Your task to perform on an android device: Search for good Japanese restaurants Image 0: 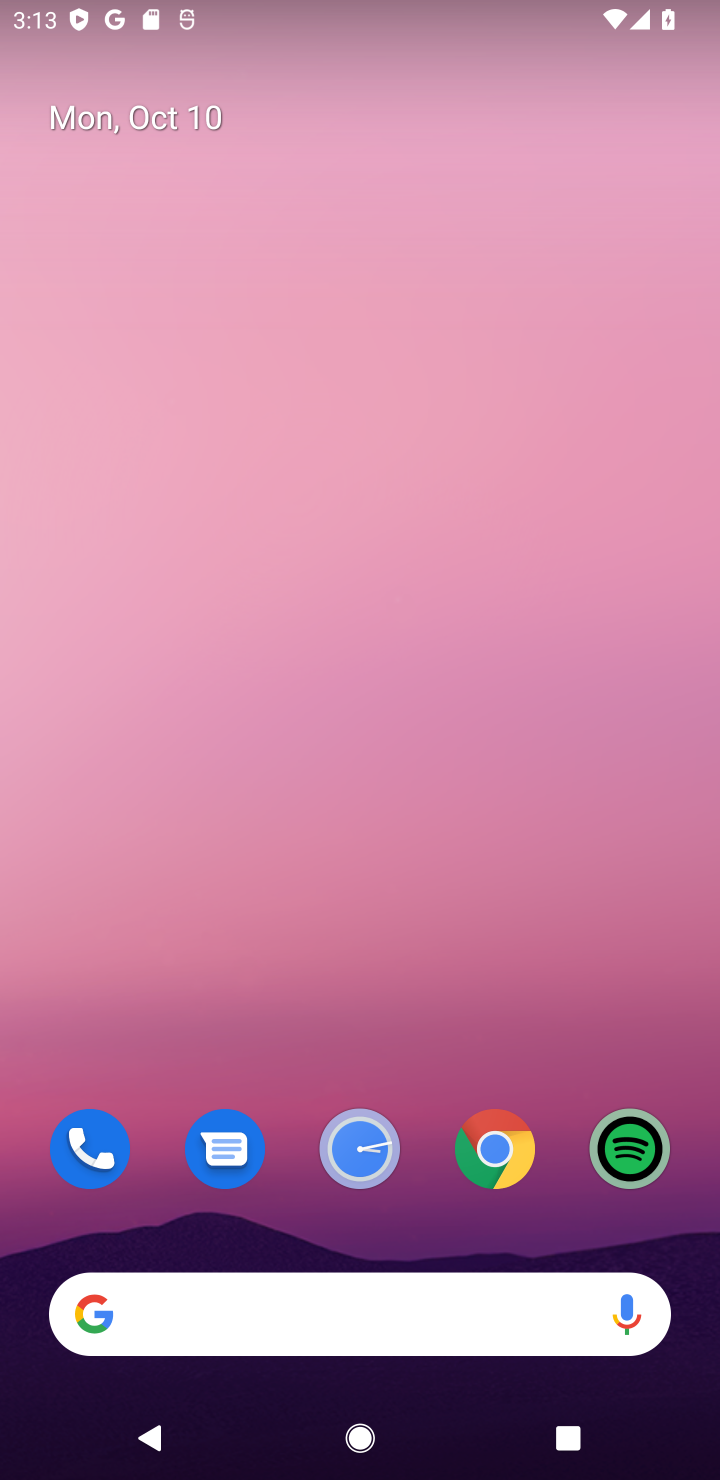
Step 0: click (314, 1283)
Your task to perform on an android device: Search for good Japanese restaurants Image 1: 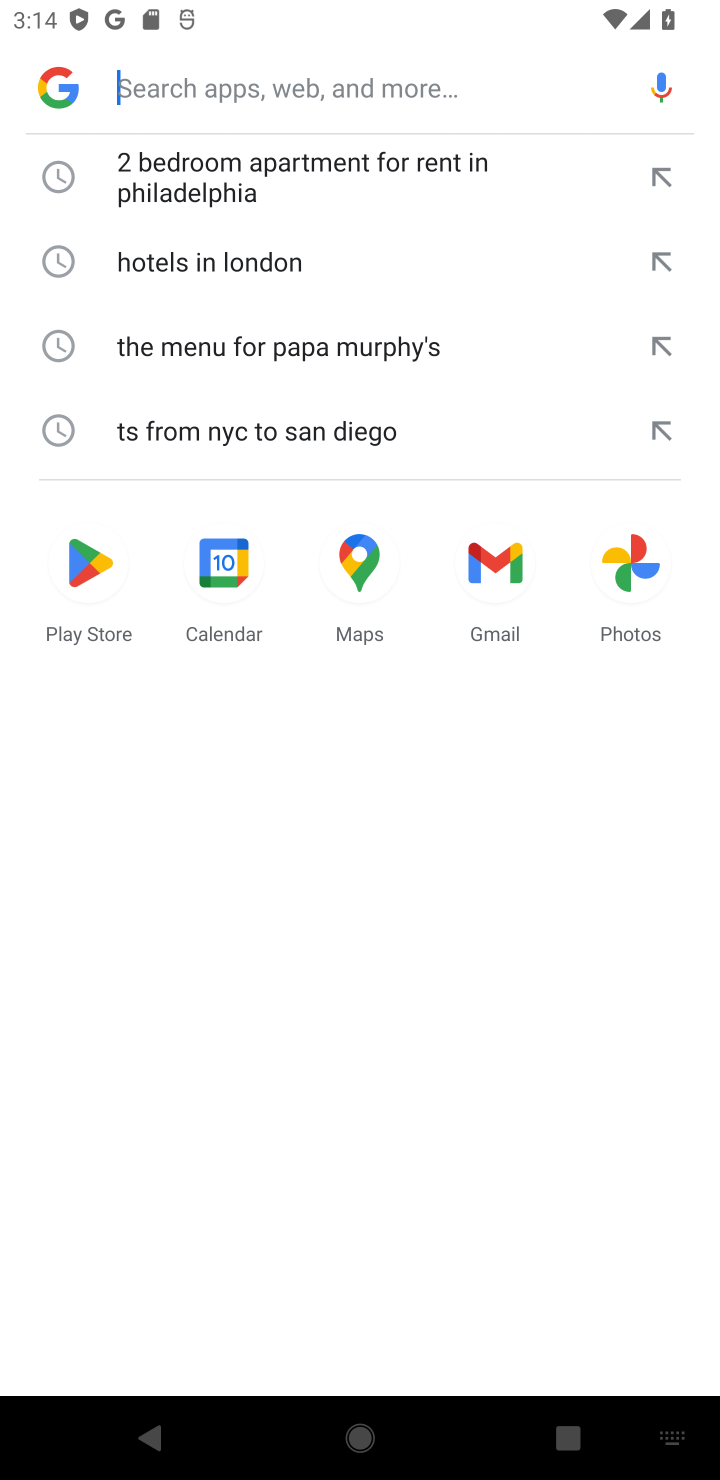
Step 1: type "good Japanese restaurants"
Your task to perform on an android device: Search for good Japanese restaurants Image 2: 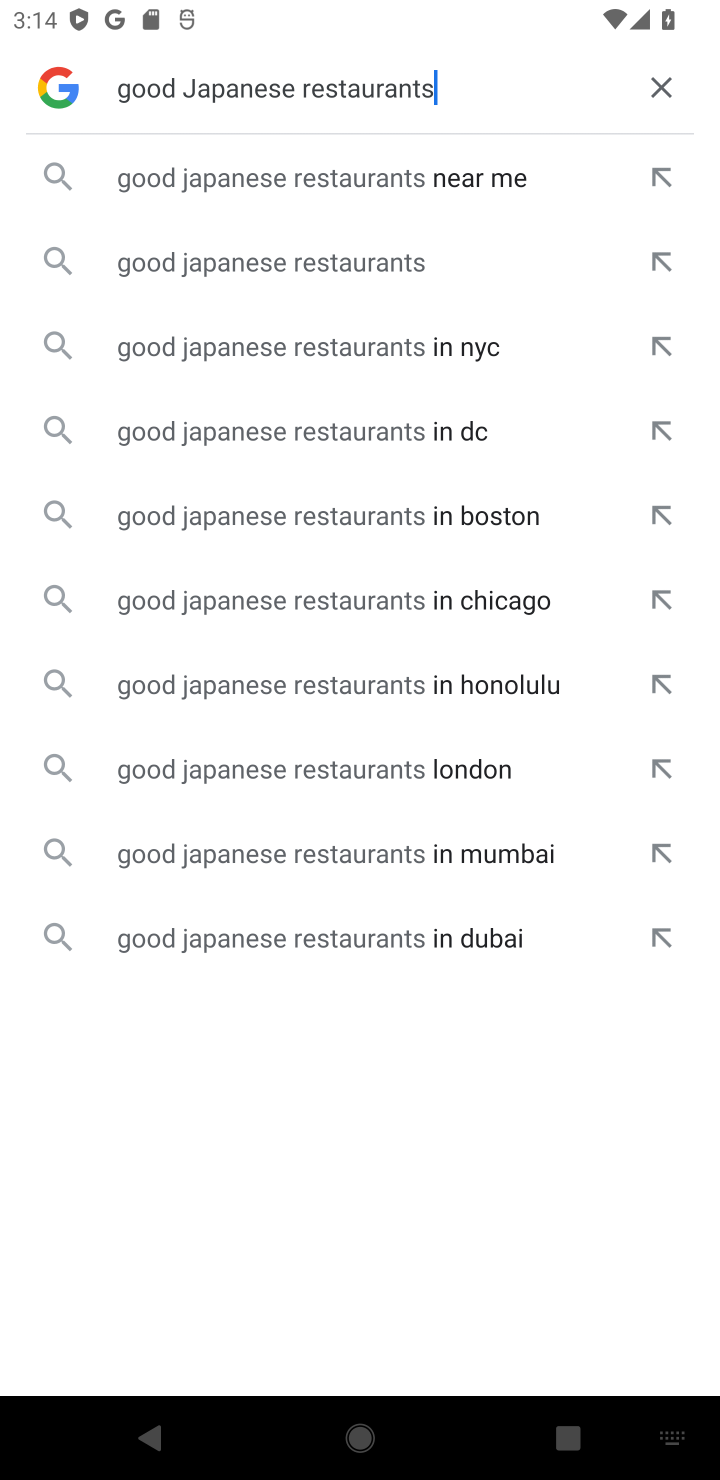
Step 2: click (144, 187)
Your task to perform on an android device: Search for good Japanese restaurants Image 3: 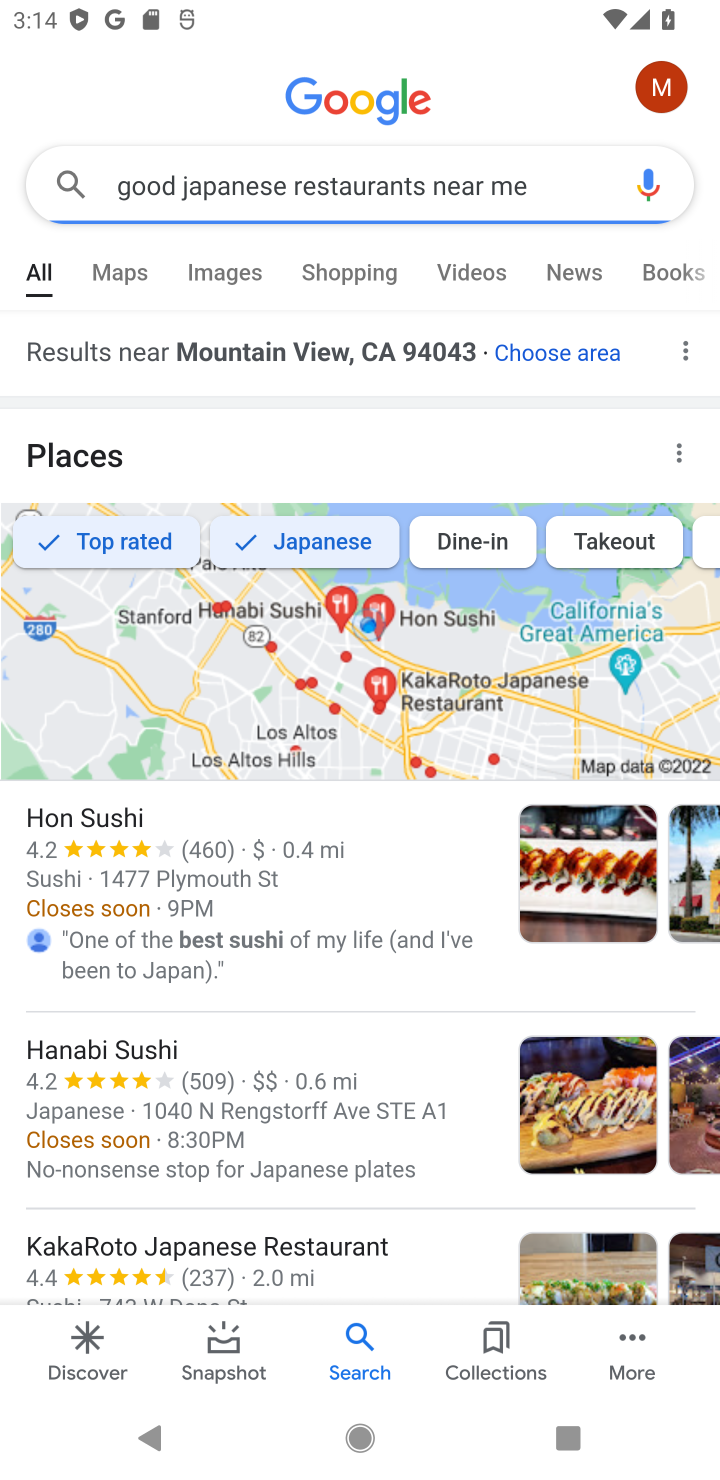
Step 3: task complete